Your task to perform on an android device: see sites visited before in the chrome app Image 0: 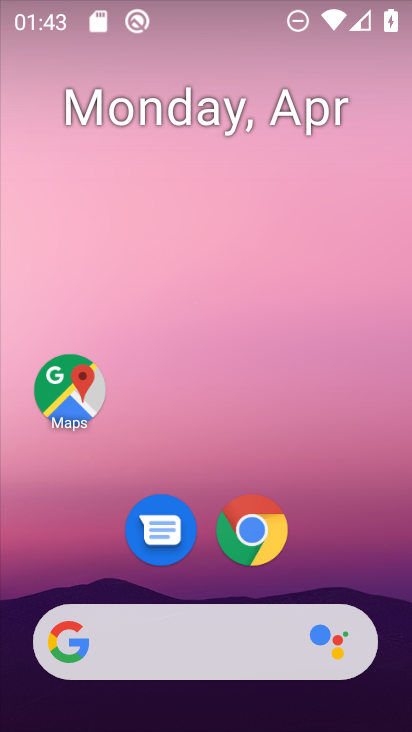
Step 0: click (249, 533)
Your task to perform on an android device: see sites visited before in the chrome app Image 1: 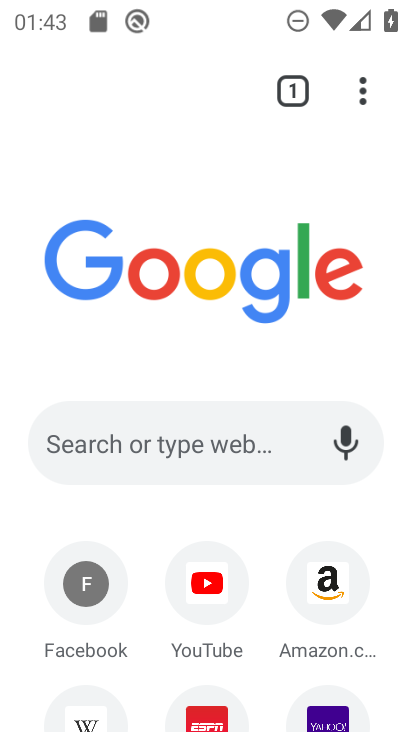
Step 1: click (357, 95)
Your task to perform on an android device: see sites visited before in the chrome app Image 2: 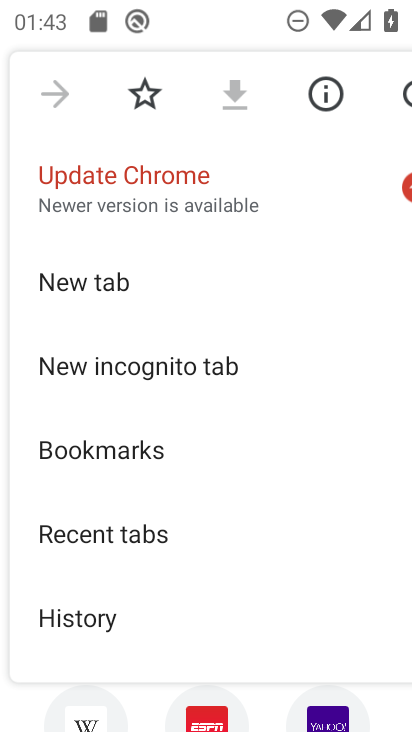
Step 2: click (91, 611)
Your task to perform on an android device: see sites visited before in the chrome app Image 3: 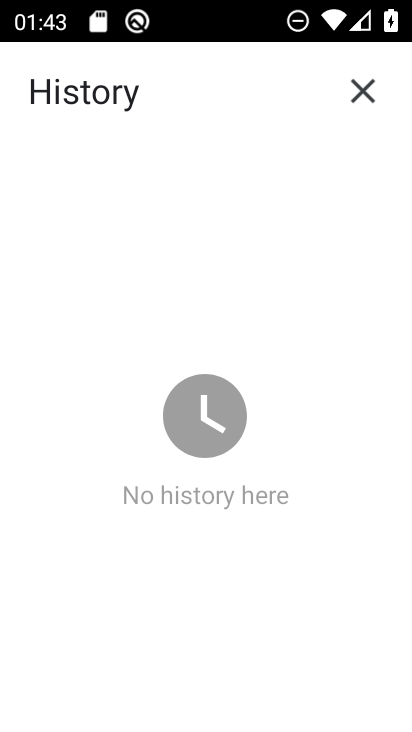
Step 3: task complete